Your task to perform on an android device: read, delete, or share a saved page in the chrome app Image 0: 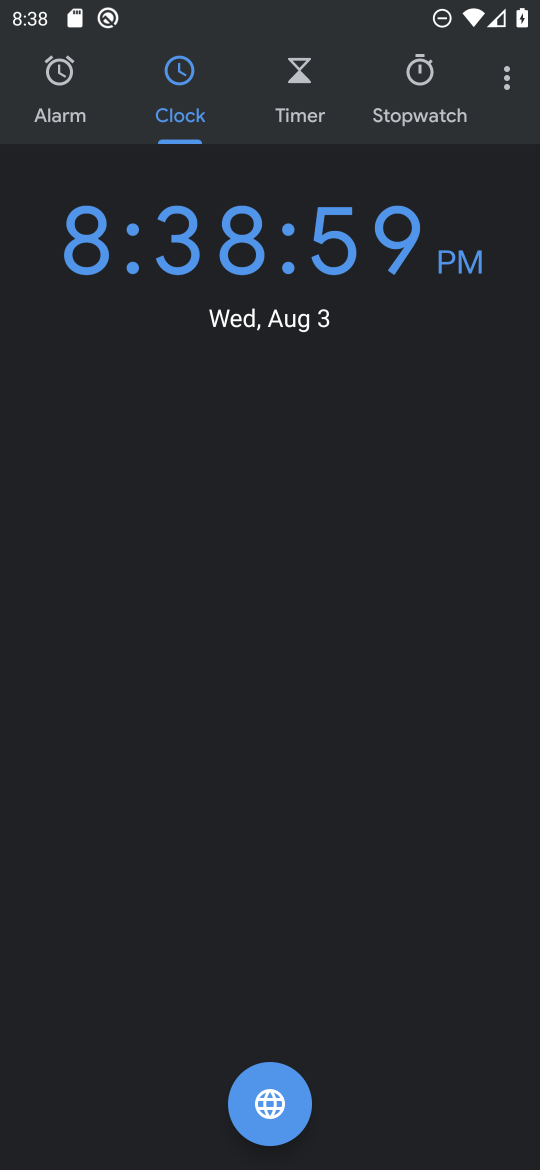
Step 0: press home button
Your task to perform on an android device: read, delete, or share a saved page in the chrome app Image 1: 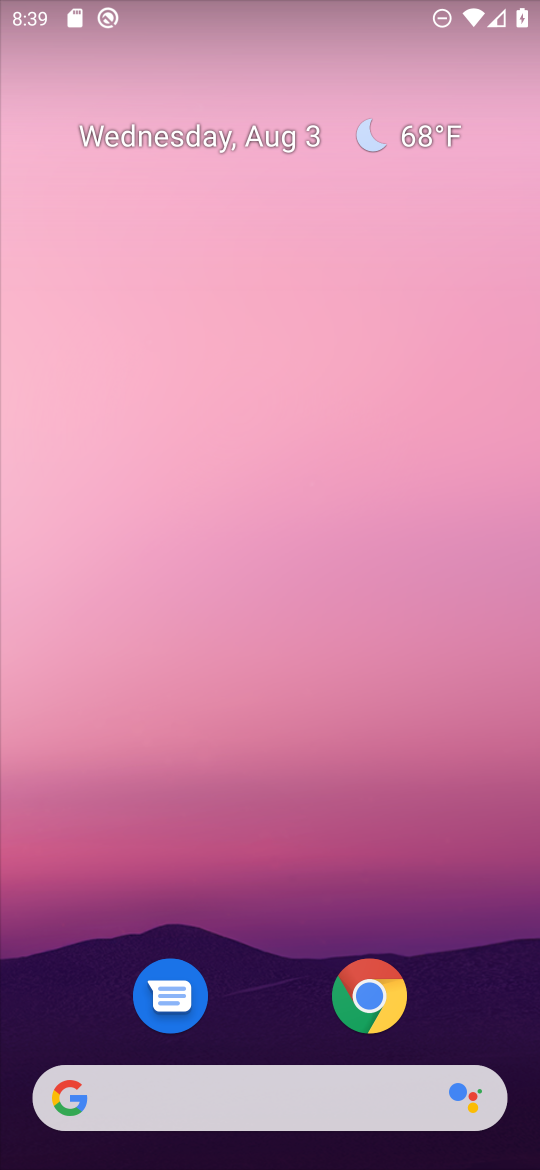
Step 1: click (377, 989)
Your task to perform on an android device: read, delete, or share a saved page in the chrome app Image 2: 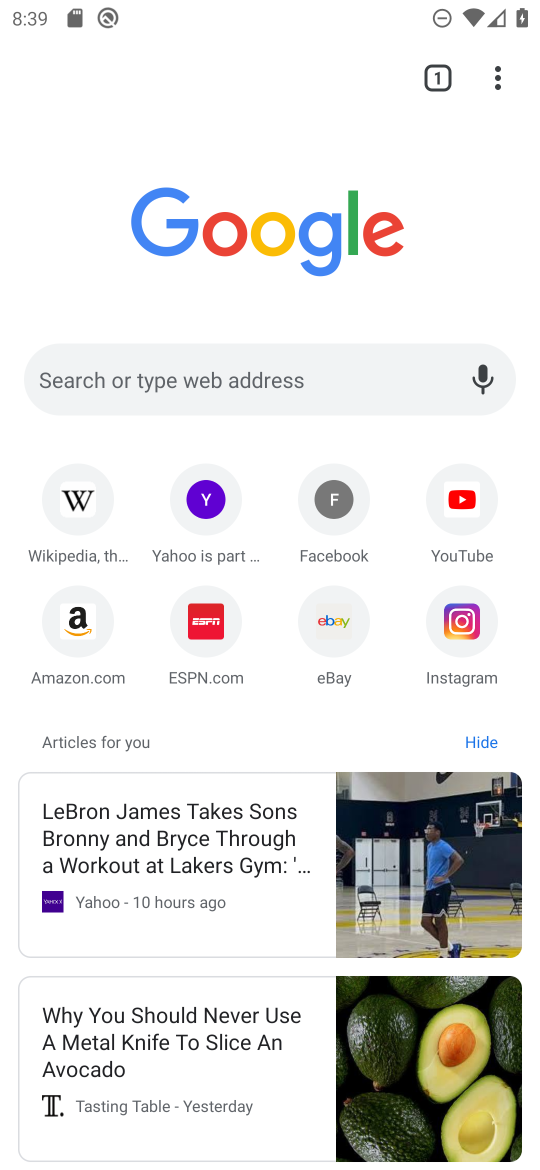
Step 2: click (498, 89)
Your task to perform on an android device: read, delete, or share a saved page in the chrome app Image 3: 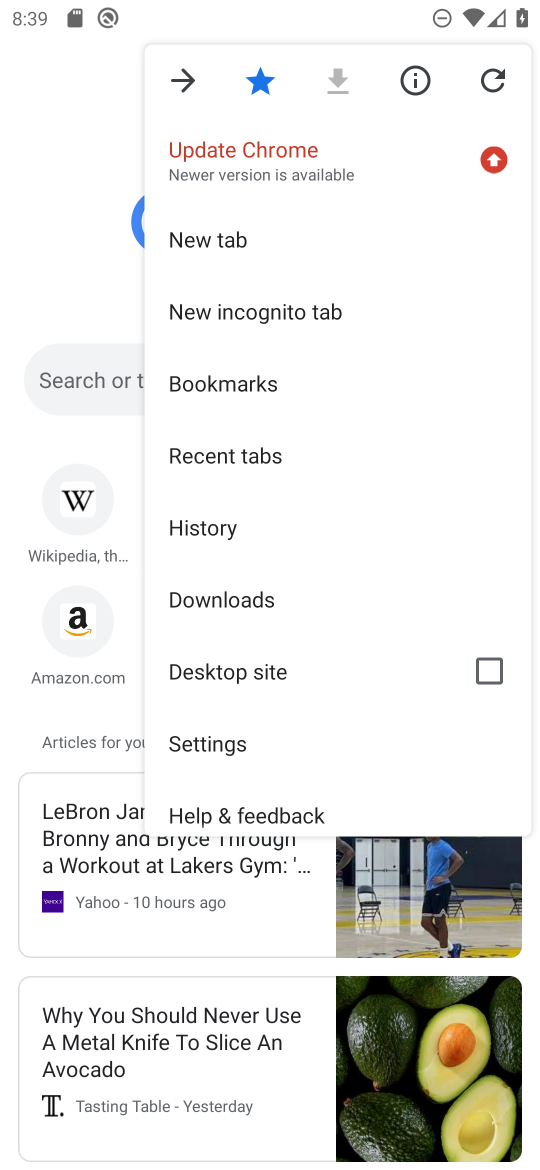
Step 3: click (251, 597)
Your task to perform on an android device: read, delete, or share a saved page in the chrome app Image 4: 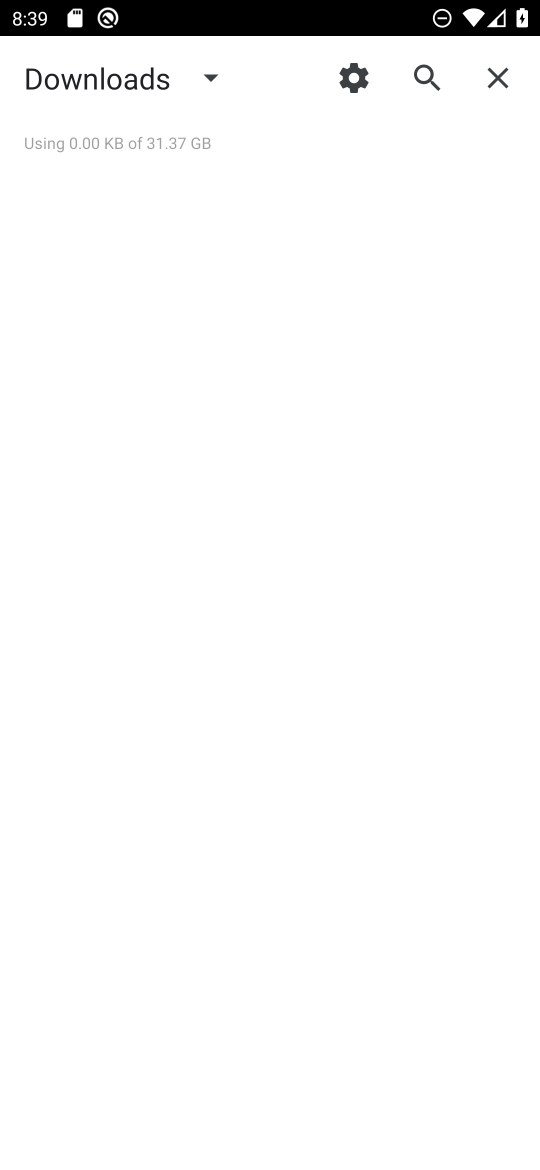
Step 4: task complete